Your task to perform on an android device: Open Youtube and go to "Your channel" Image 0: 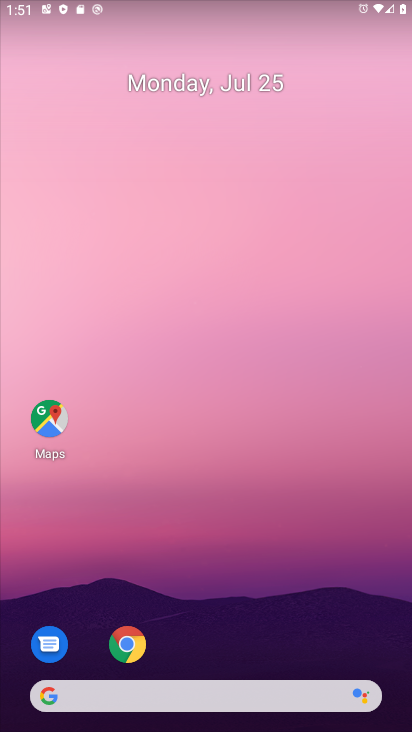
Step 0: drag from (362, 615) to (264, 5)
Your task to perform on an android device: Open Youtube and go to "Your channel" Image 1: 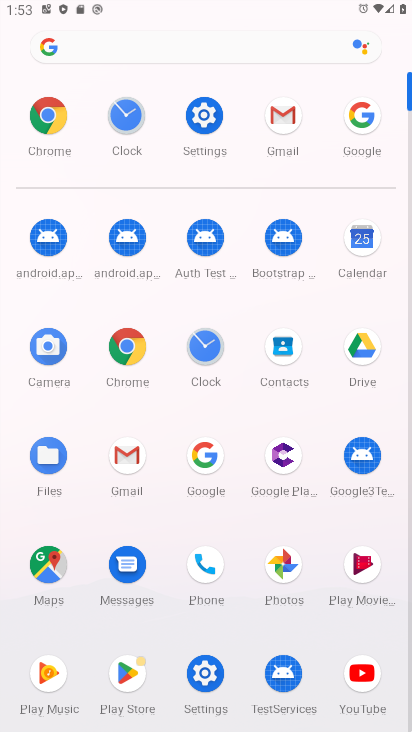
Step 1: click (372, 670)
Your task to perform on an android device: Open Youtube and go to "Your channel" Image 2: 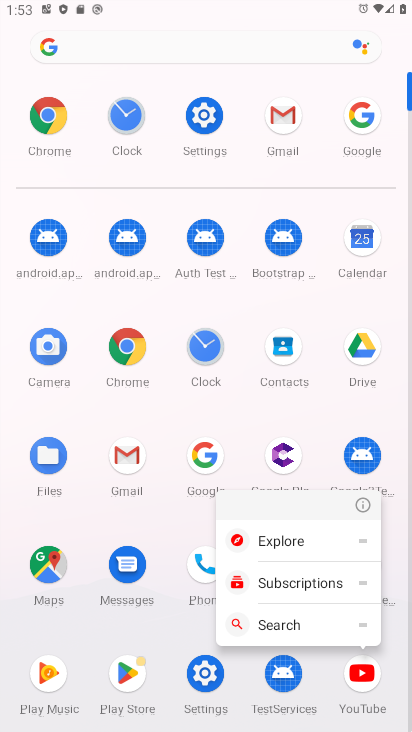
Step 2: click (365, 670)
Your task to perform on an android device: Open Youtube and go to "Your channel" Image 3: 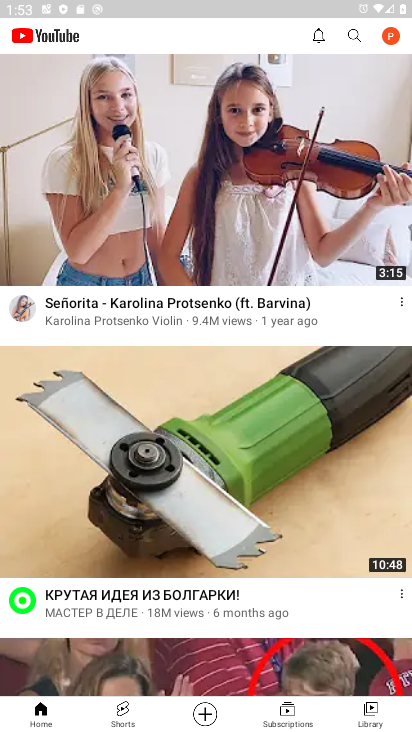
Step 3: click (388, 28)
Your task to perform on an android device: Open Youtube and go to "Your channel" Image 4: 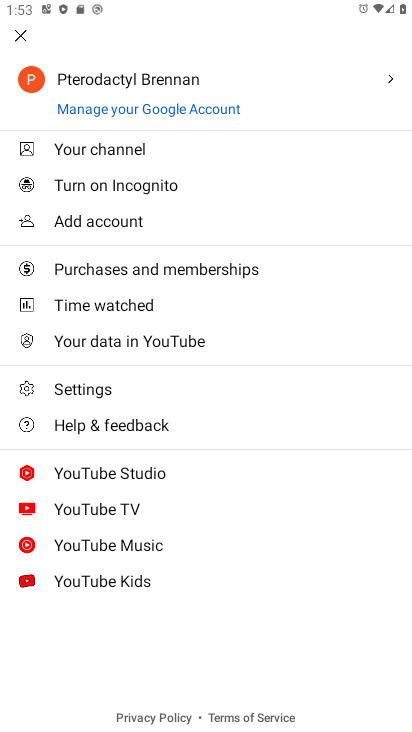
Step 4: click (77, 154)
Your task to perform on an android device: Open Youtube and go to "Your channel" Image 5: 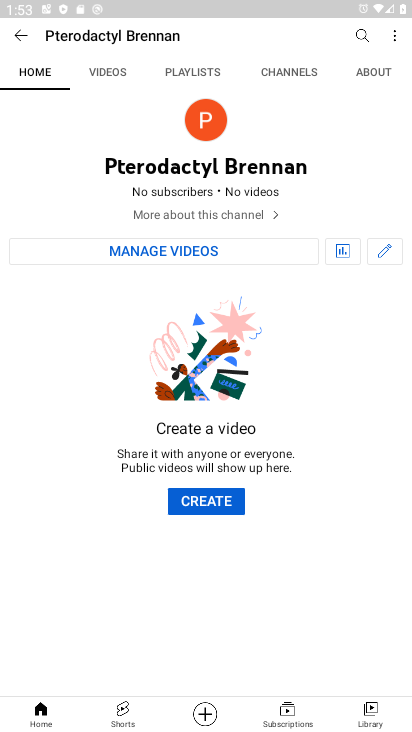
Step 5: task complete